Your task to perform on an android device: toggle data saver in the chrome app Image 0: 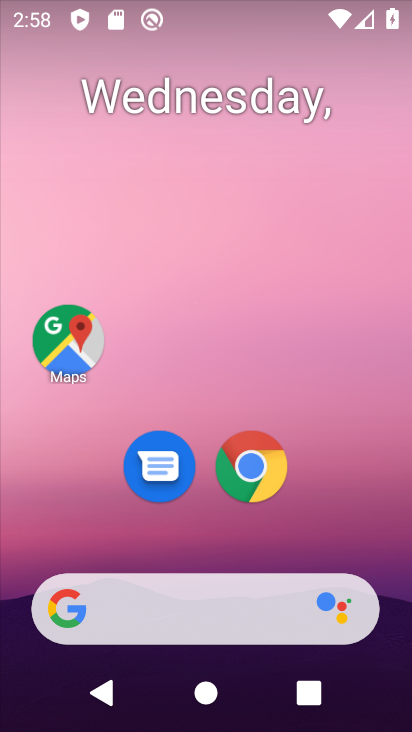
Step 0: click (249, 465)
Your task to perform on an android device: toggle data saver in the chrome app Image 1: 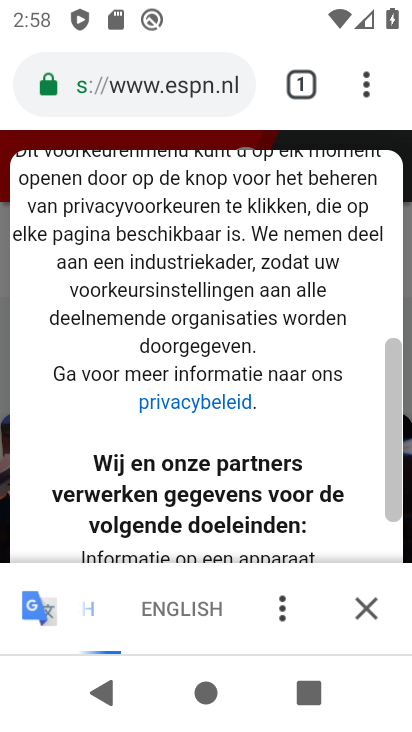
Step 1: click (362, 91)
Your task to perform on an android device: toggle data saver in the chrome app Image 2: 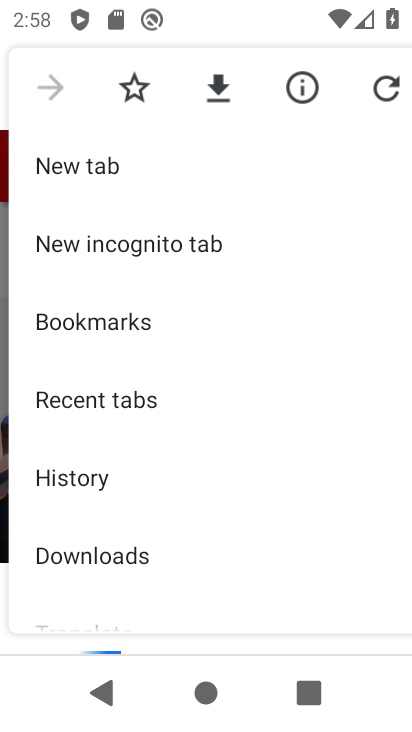
Step 2: drag from (156, 552) to (176, 285)
Your task to perform on an android device: toggle data saver in the chrome app Image 3: 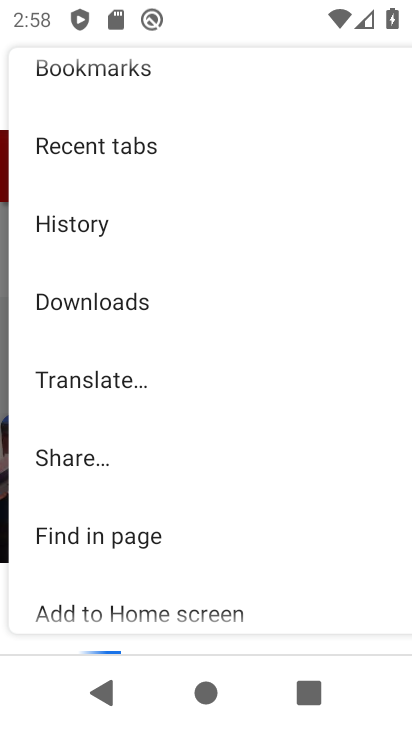
Step 3: drag from (155, 565) to (171, 310)
Your task to perform on an android device: toggle data saver in the chrome app Image 4: 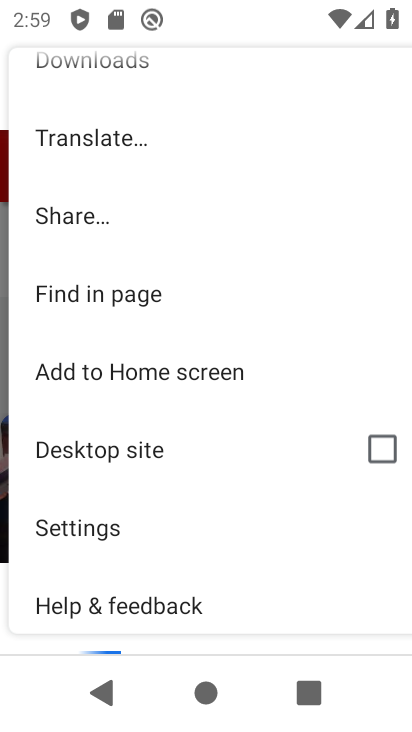
Step 4: click (102, 522)
Your task to perform on an android device: toggle data saver in the chrome app Image 5: 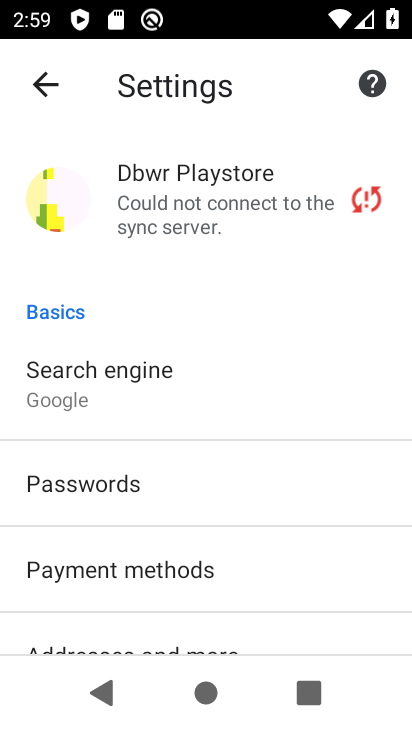
Step 5: drag from (236, 595) to (205, 210)
Your task to perform on an android device: toggle data saver in the chrome app Image 6: 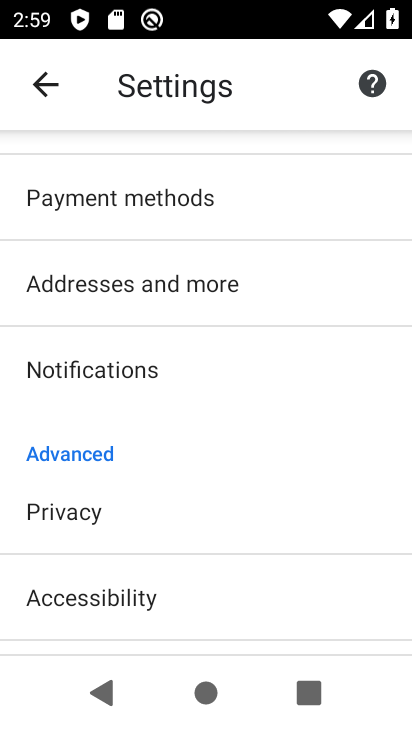
Step 6: drag from (214, 556) to (213, 297)
Your task to perform on an android device: toggle data saver in the chrome app Image 7: 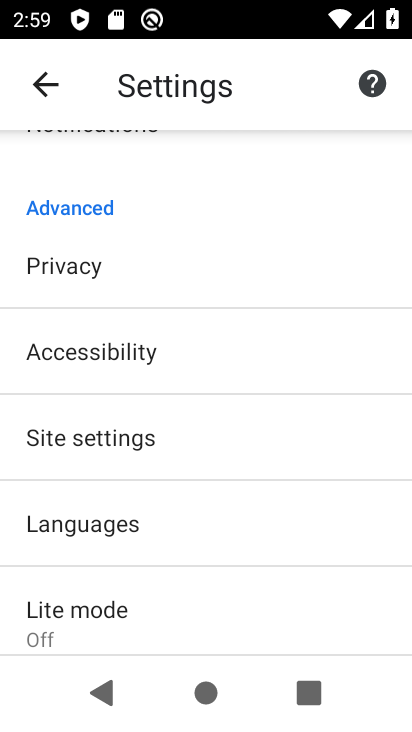
Step 7: click (74, 609)
Your task to perform on an android device: toggle data saver in the chrome app Image 8: 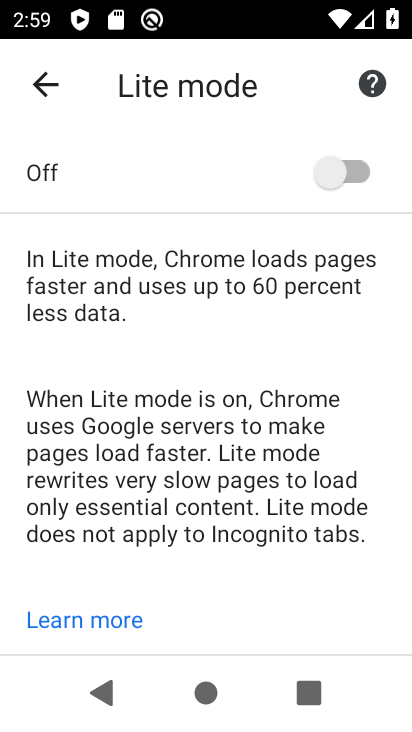
Step 8: click (352, 165)
Your task to perform on an android device: toggle data saver in the chrome app Image 9: 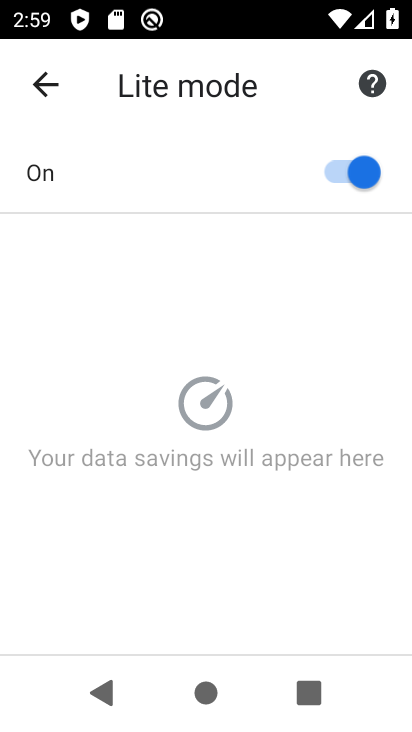
Step 9: task complete